Your task to perform on an android device: open app "HBO Max: Stream TV & Movies" (install if not already installed), go to login, and select forgot password Image 0: 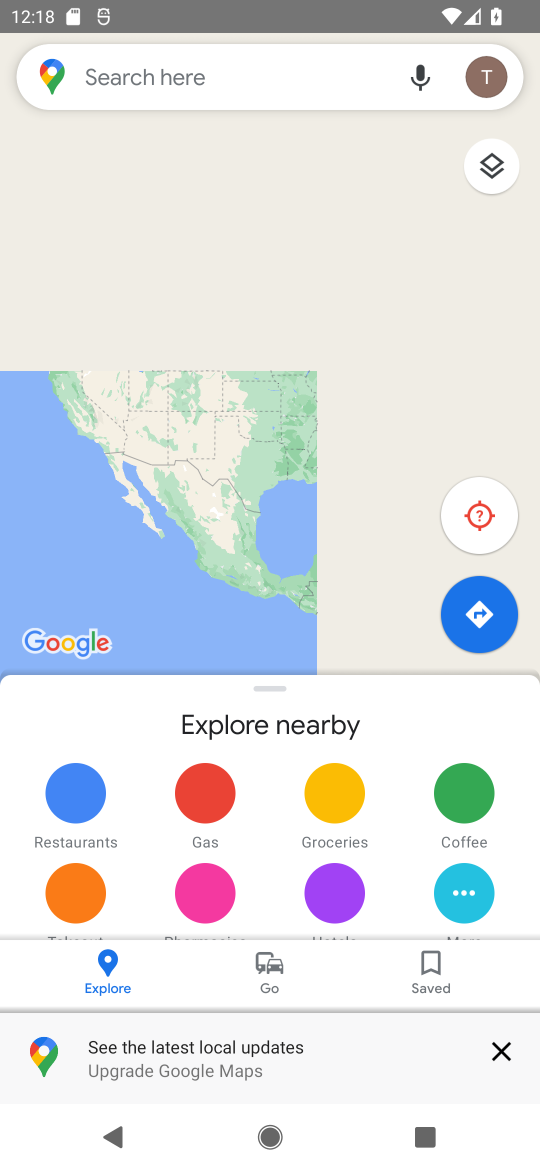
Step 0: press back button
Your task to perform on an android device: open app "HBO Max: Stream TV & Movies" (install if not already installed), go to login, and select forgot password Image 1: 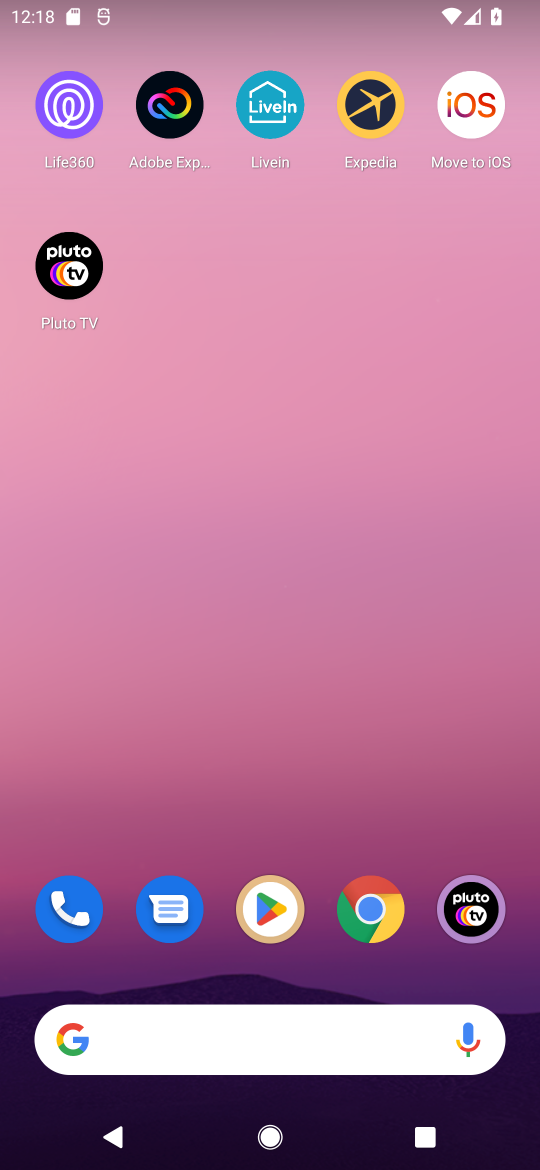
Step 1: click (266, 909)
Your task to perform on an android device: open app "HBO Max: Stream TV & Movies" (install if not already installed), go to login, and select forgot password Image 2: 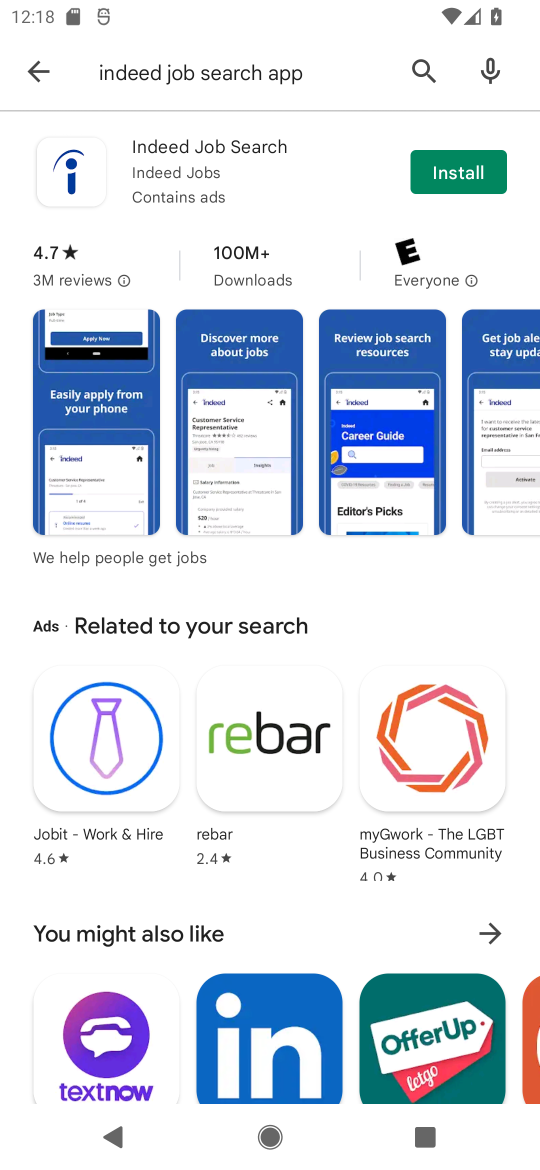
Step 2: click (429, 71)
Your task to perform on an android device: open app "HBO Max: Stream TV & Movies" (install if not already installed), go to login, and select forgot password Image 3: 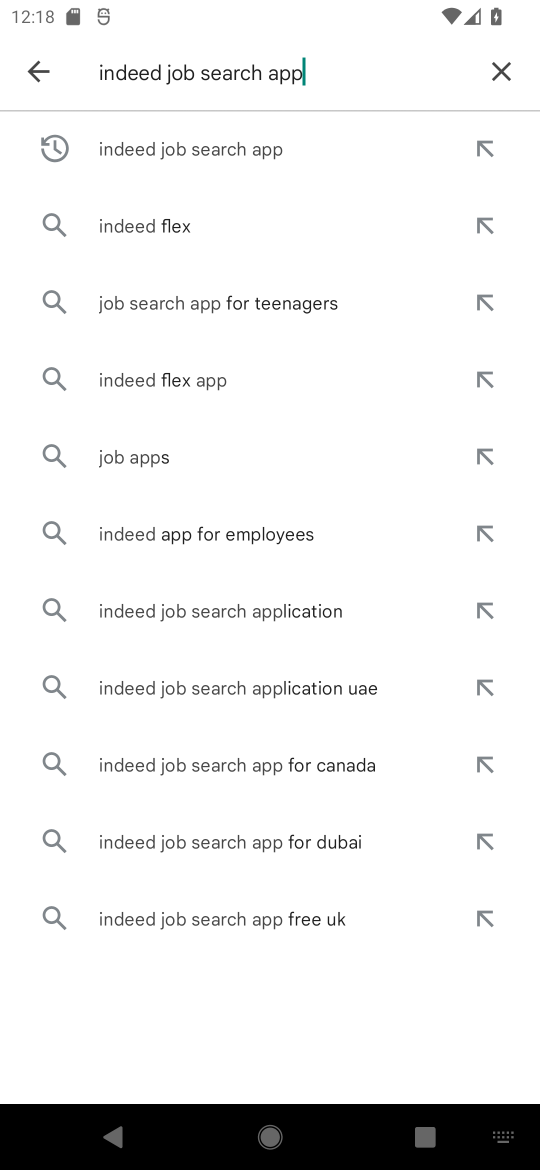
Step 3: click (502, 66)
Your task to perform on an android device: open app "HBO Max: Stream TV & Movies" (install if not already installed), go to login, and select forgot password Image 4: 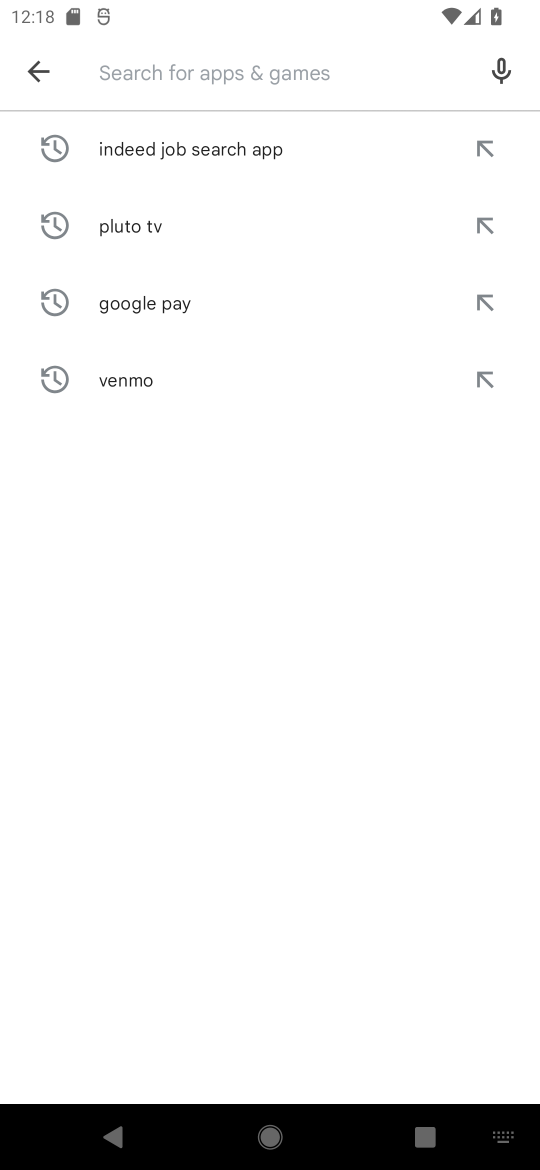
Step 4: click (188, 78)
Your task to perform on an android device: open app "HBO Max: Stream TV & Movies" (install if not already installed), go to login, and select forgot password Image 5: 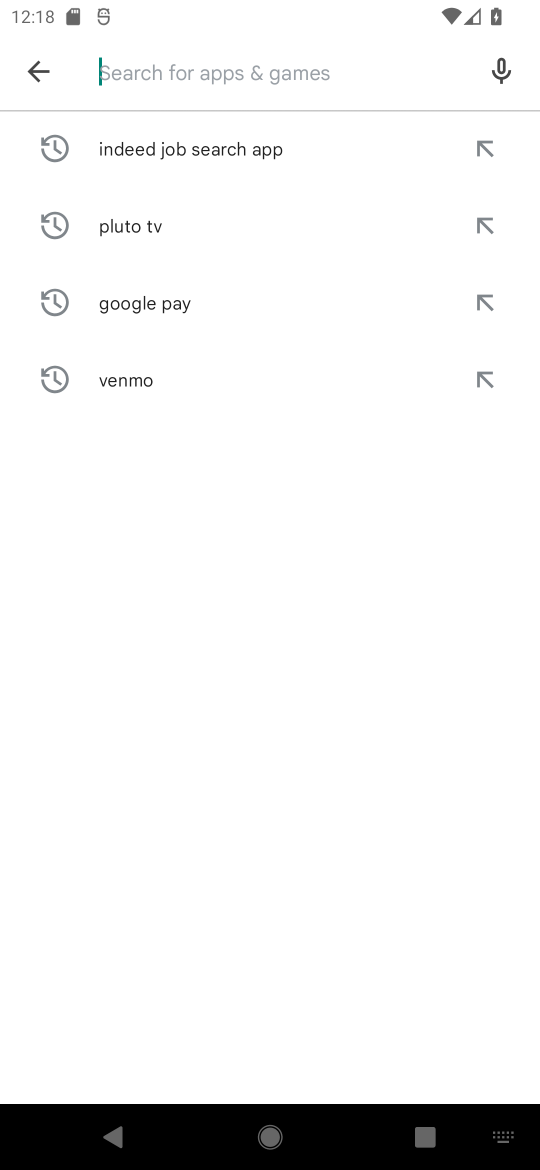
Step 5: type "hbo"
Your task to perform on an android device: open app "HBO Max: Stream TV & Movies" (install if not already installed), go to login, and select forgot password Image 6: 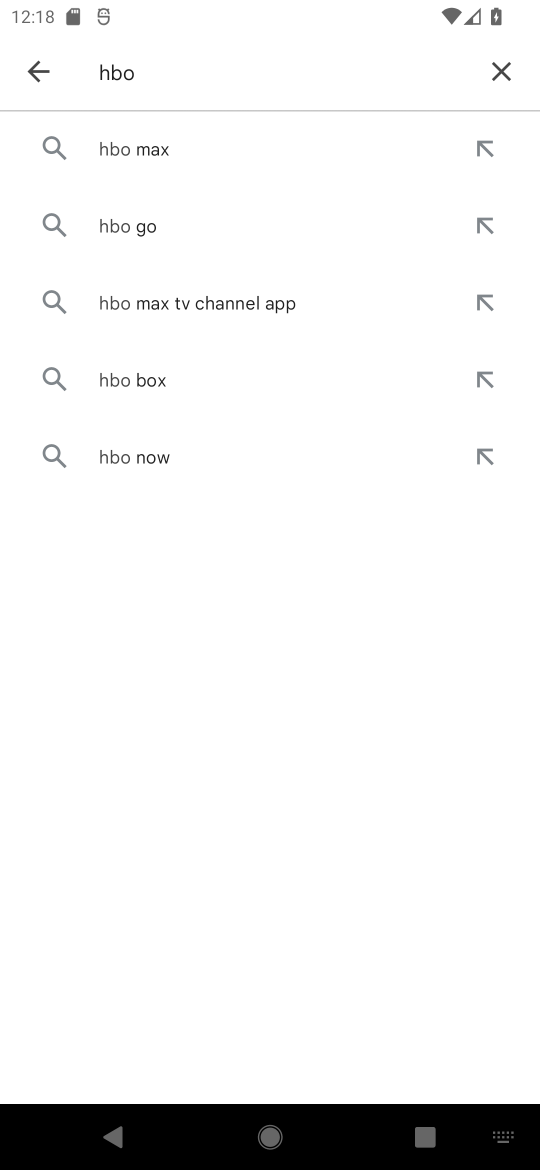
Step 6: click (168, 146)
Your task to perform on an android device: open app "HBO Max: Stream TV & Movies" (install if not already installed), go to login, and select forgot password Image 7: 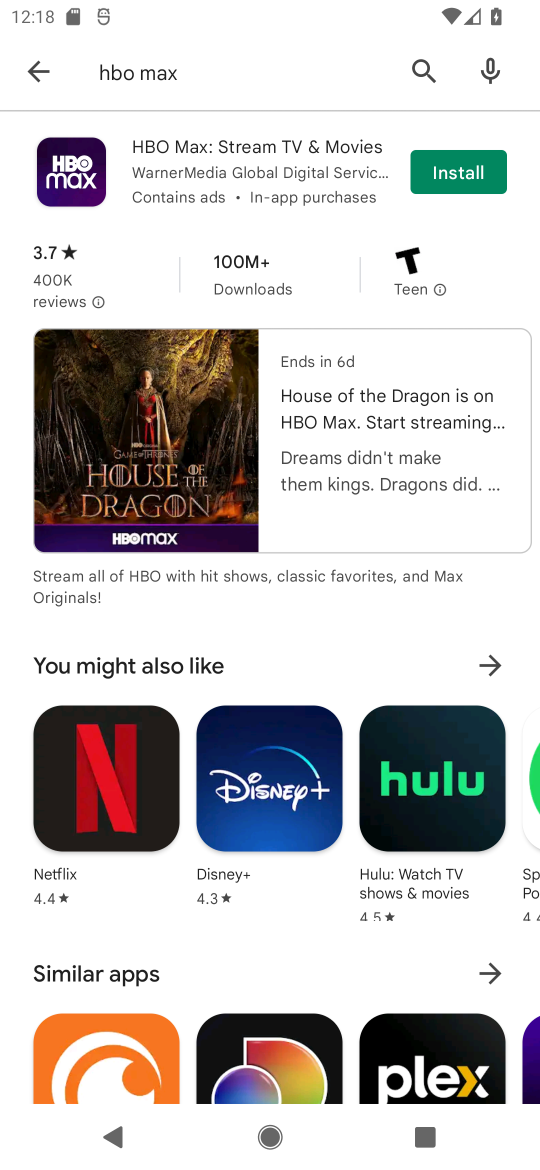
Step 7: click (441, 174)
Your task to perform on an android device: open app "HBO Max: Stream TV & Movies" (install if not already installed), go to login, and select forgot password Image 8: 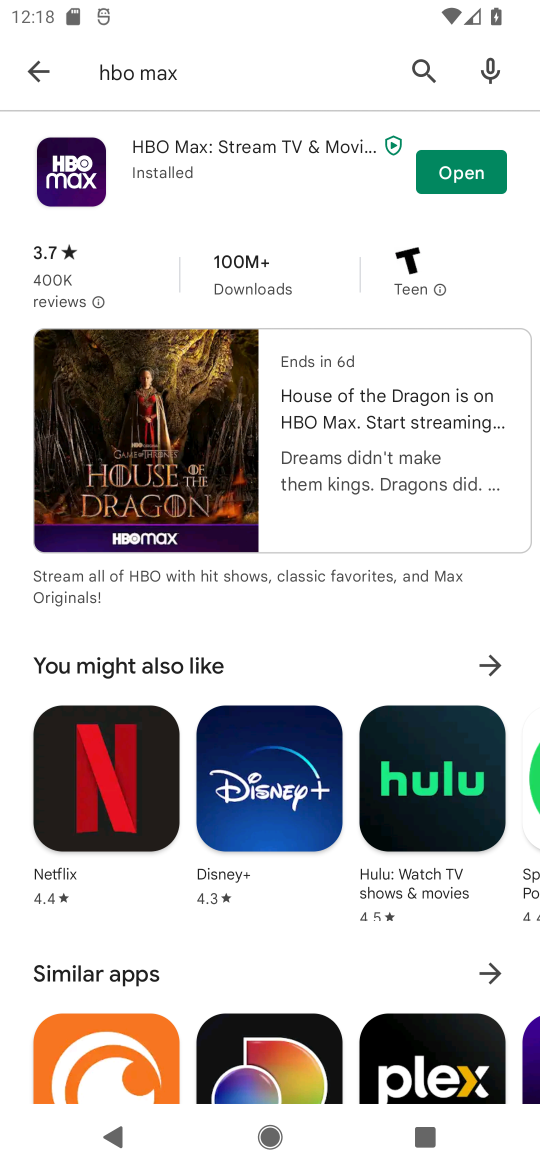
Step 8: click (435, 173)
Your task to perform on an android device: open app "HBO Max: Stream TV & Movies" (install if not already installed), go to login, and select forgot password Image 9: 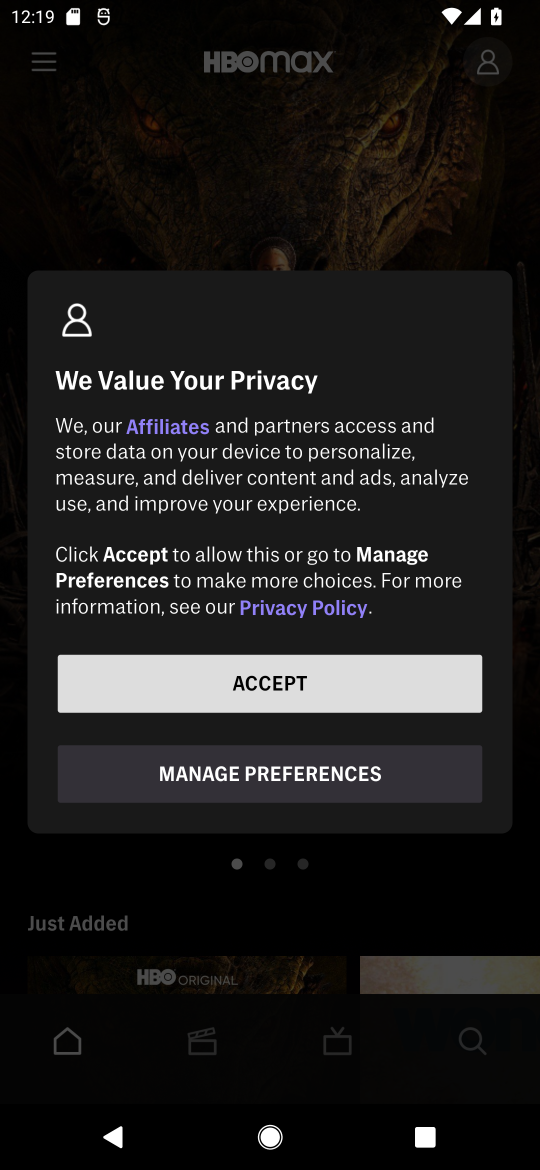
Step 9: click (318, 699)
Your task to perform on an android device: open app "HBO Max: Stream TV & Movies" (install if not already installed), go to login, and select forgot password Image 10: 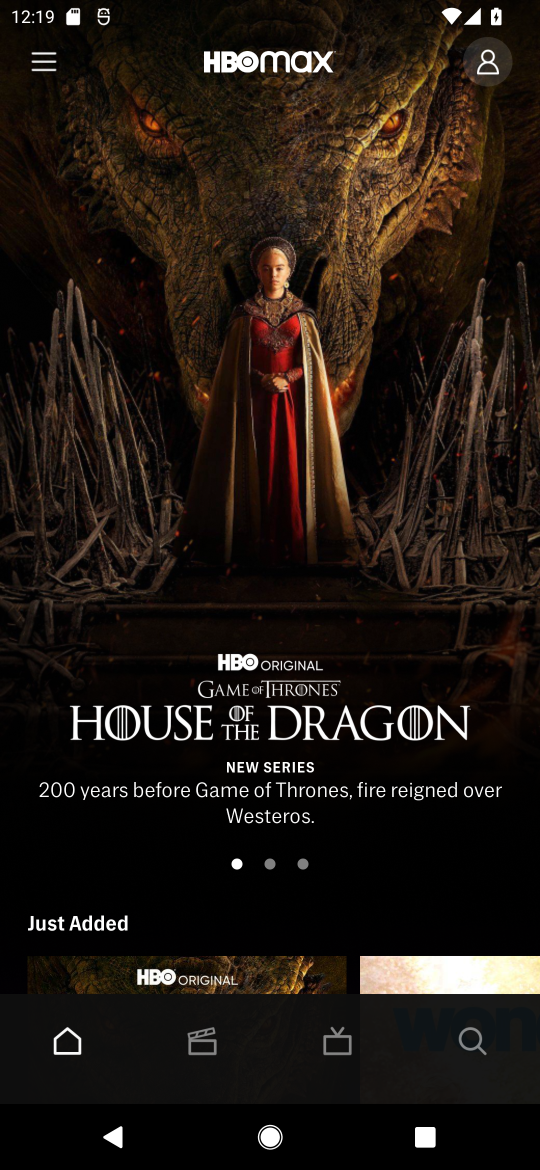
Step 10: click (491, 52)
Your task to perform on an android device: open app "HBO Max: Stream TV & Movies" (install if not already installed), go to login, and select forgot password Image 11: 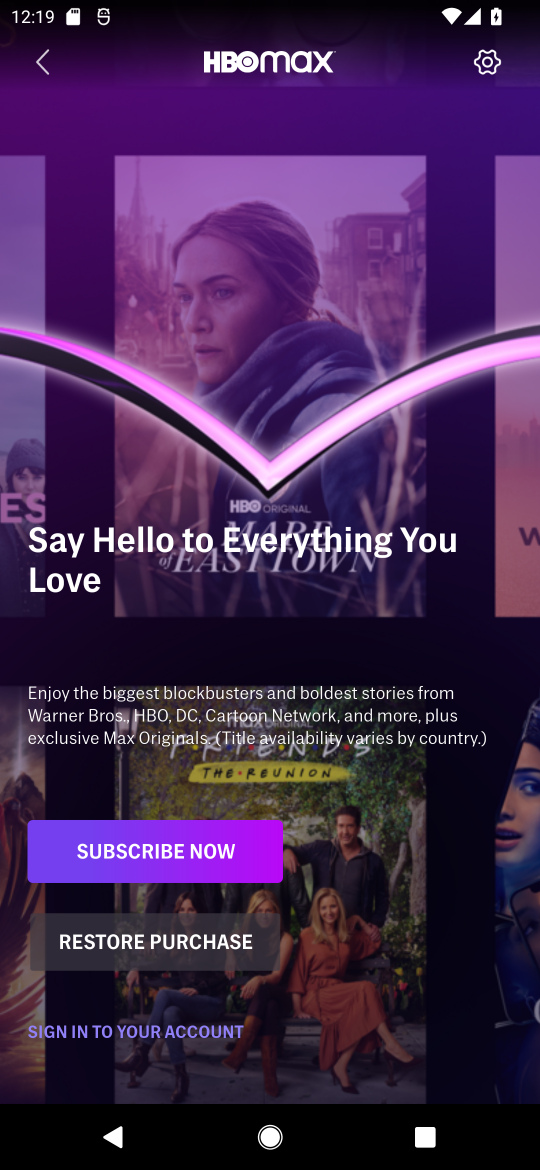
Step 11: click (174, 1030)
Your task to perform on an android device: open app "HBO Max: Stream TV & Movies" (install if not already installed), go to login, and select forgot password Image 12: 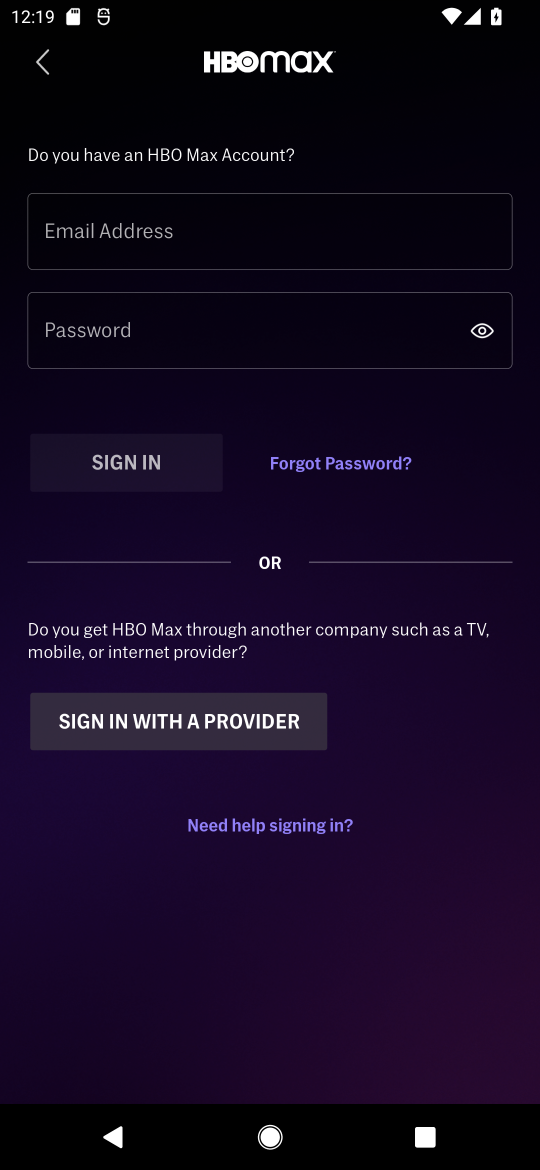
Step 12: click (312, 460)
Your task to perform on an android device: open app "HBO Max: Stream TV & Movies" (install if not already installed), go to login, and select forgot password Image 13: 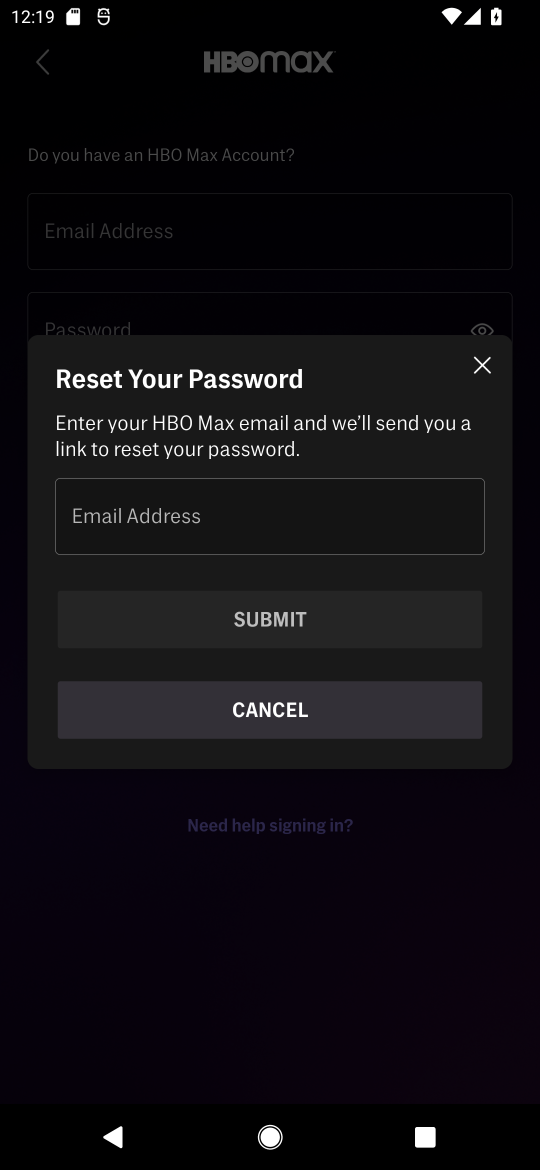
Step 13: task complete